Your task to perform on an android device: check battery use Image 0: 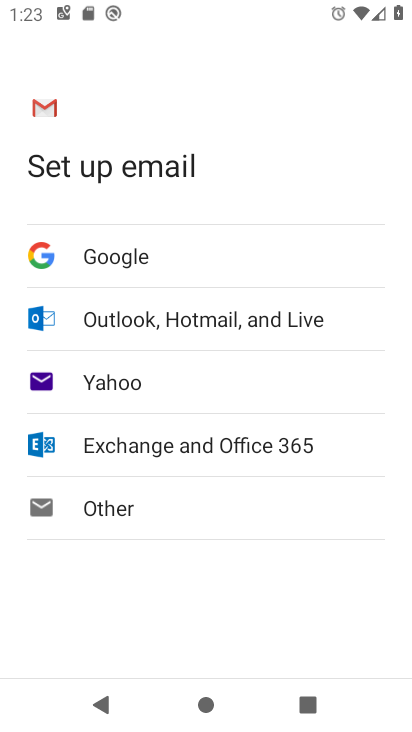
Step 0: press home button
Your task to perform on an android device: check battery use Image 1: 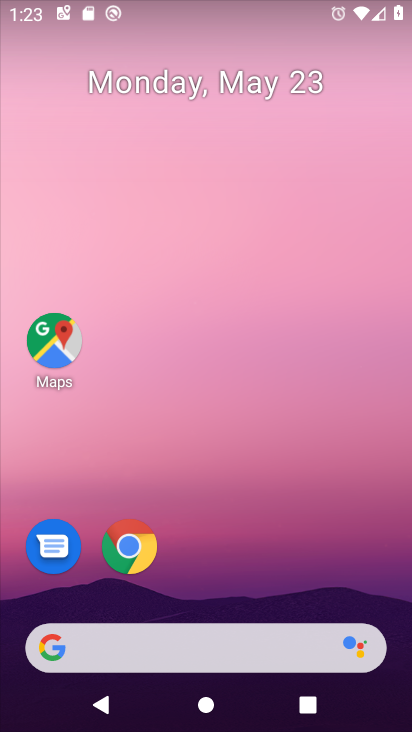
Step 1: drag from (280, 670) to (320, 78)
Your task to perform on an android device: check battery use Image 2: 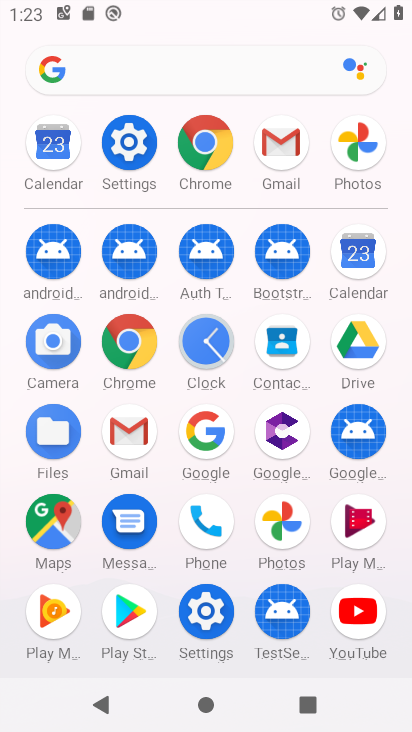
Step 2: click (123, 143)
Your task to perform on an android device: check battery use Image 3: 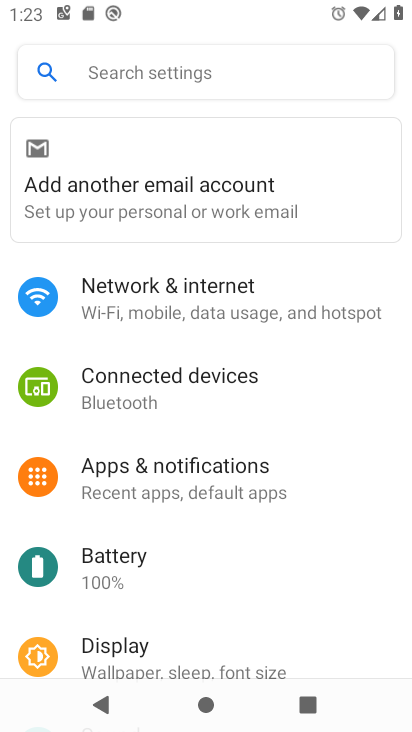
Step 3: drag from (185, 538) to (213, 305)
Your task to perform on an android device: check battery use Image 4: 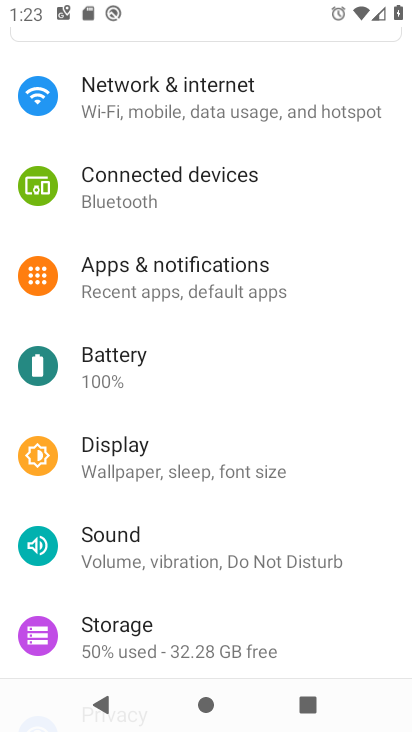
Step 4: click (180, 371)
Your task to perform on an android device: check battery use Image 5: 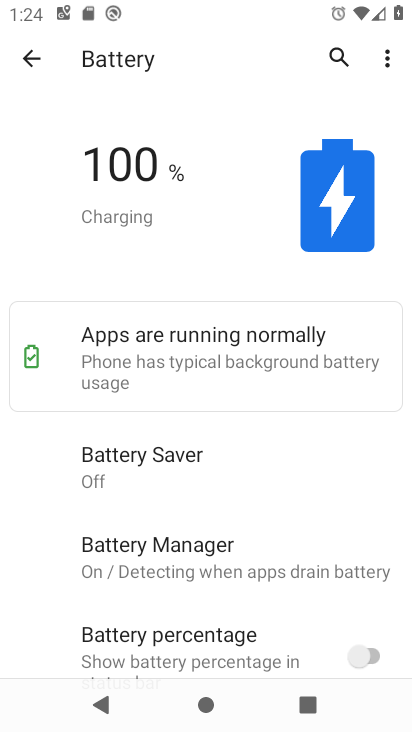
Step 5: task complete